Your task to perform on an android device: Go to Google Image 0: 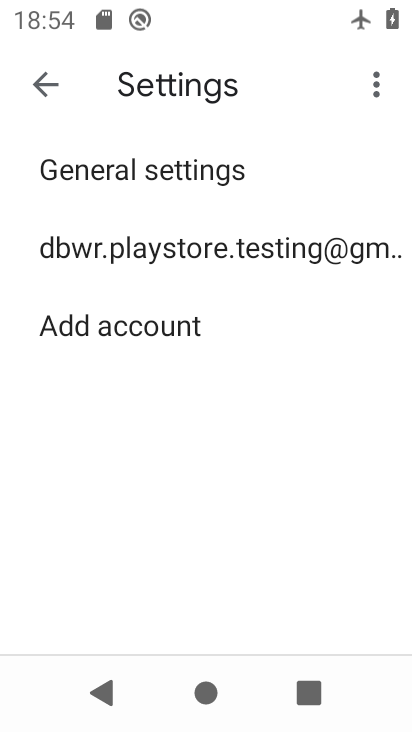
Step 0: press home button
Your task to perform on an android device: Go to Google Image 1: 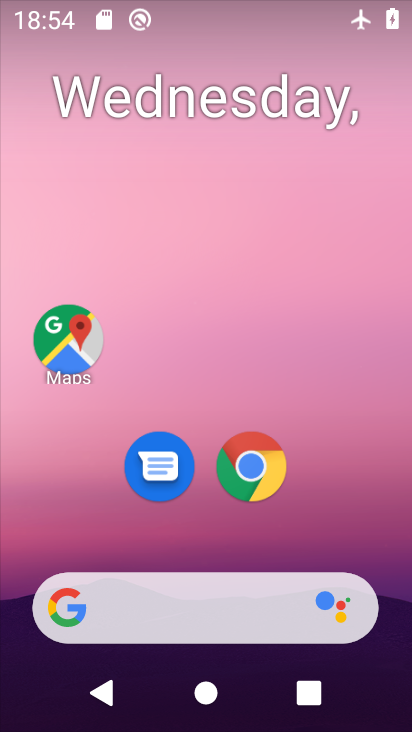
Step 1: click (84, 598)
Your task to perform on an android device: Go to Google Image 2: 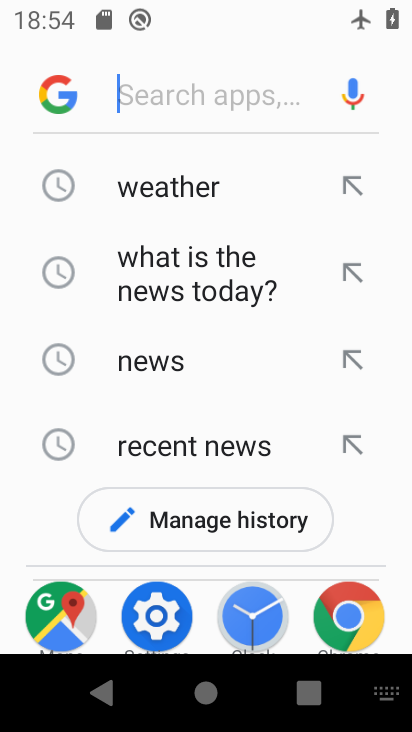
Step 2: task complete